Your task to perform on an android device: Open accessibility settings Image 0: 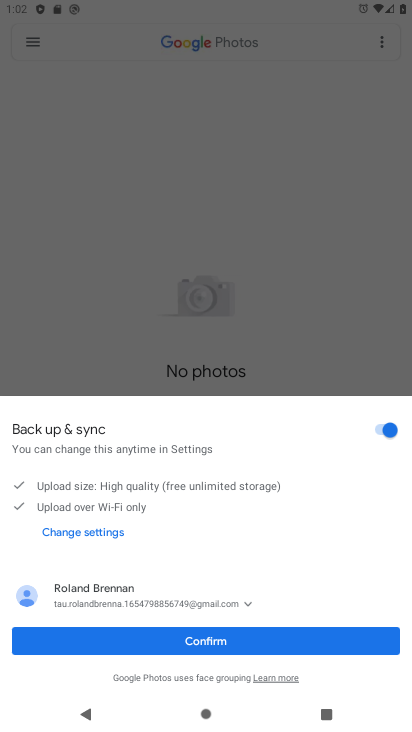
Step 0: press home button
Your task to perform on an android device: Open accessibility settings Image 1: 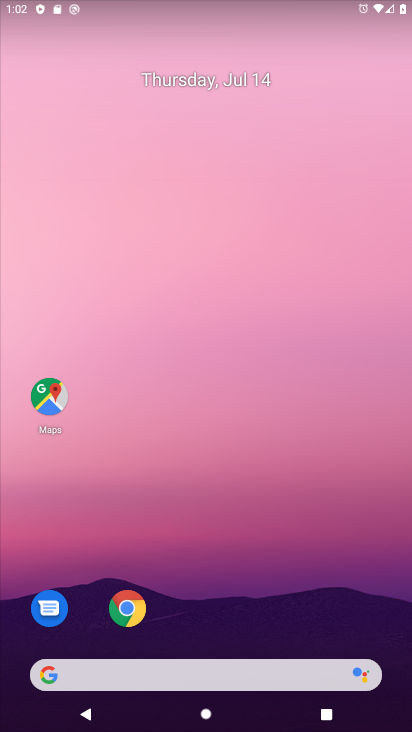
Step 1: drag from (303, 631) to (165, 156)
Your task to perform on an android device: Open accessibility settings Image 2: 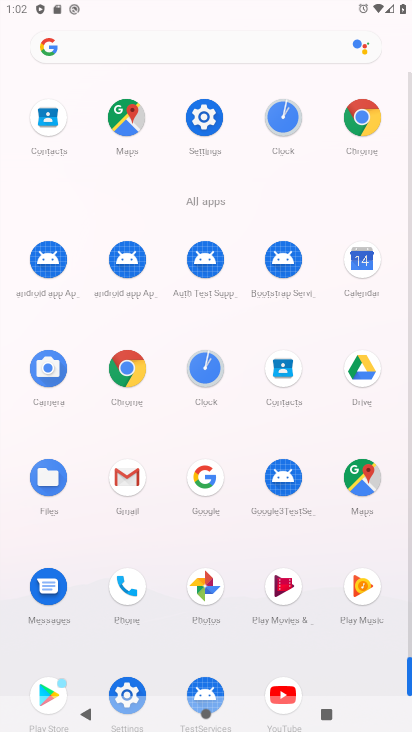
Step 2: click (123, 681)
Your task to perform on an android device: Open accessibility settings Image 3: 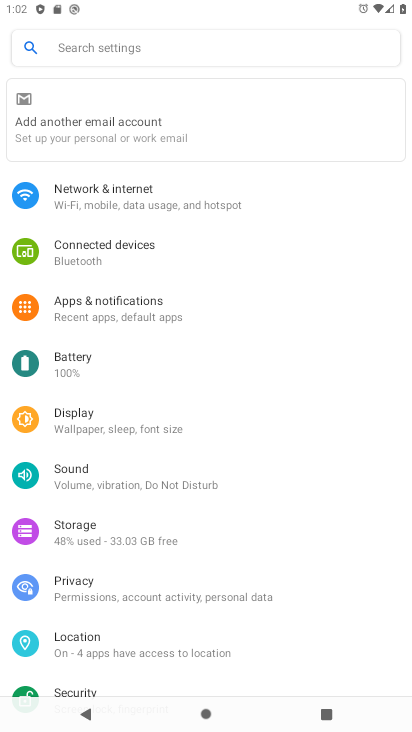
Step 3: drag from (210, 616) to (169, 310)
Your task to perform on an android device: Open accessibility settings Image 4: 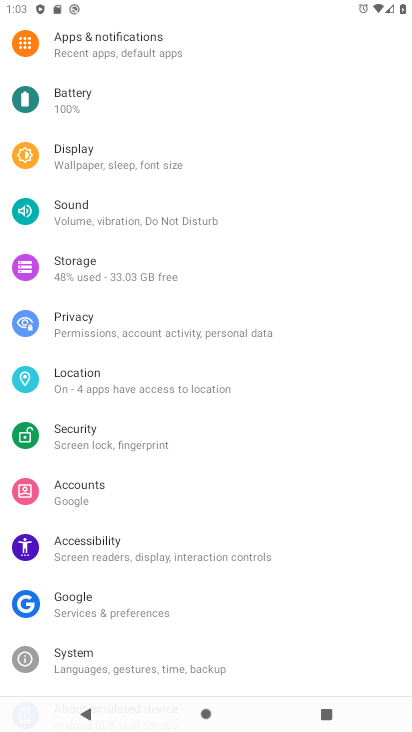
Step 4: click (108, 513)
Your task to perform on an android device: Open accessibility settings Image 5: 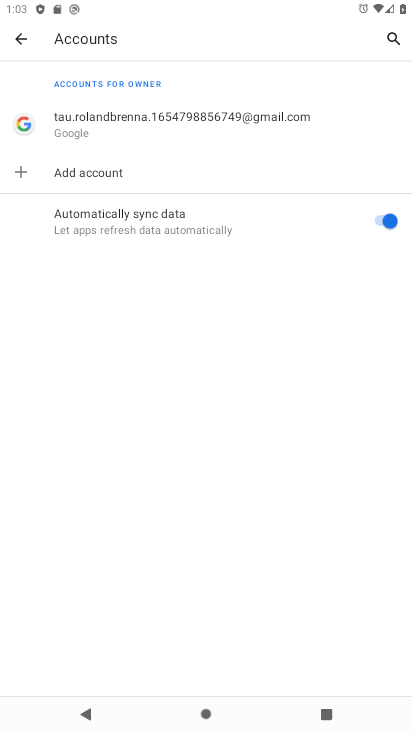
Step 5: click (21, 38)
Your task to perform on an android device: Open accessibility settings Image 6: 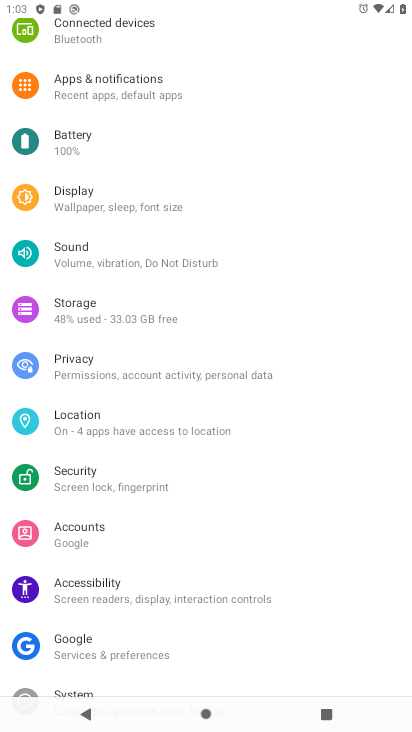
Step 6: drag from (142, 634) to (138, 314)
Your task to perform on an android device: Open accessibility settings Image 7: 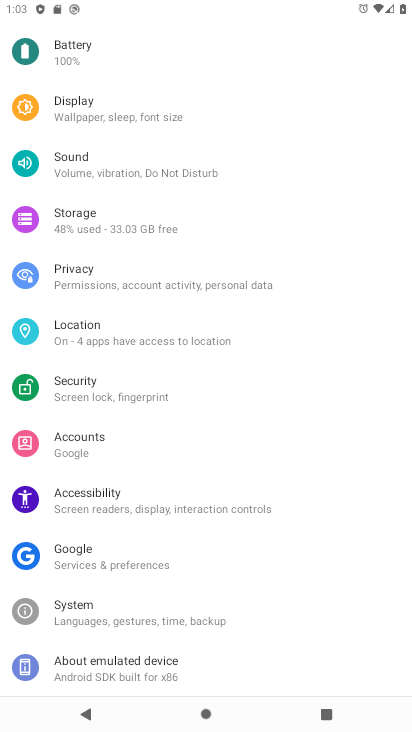
Step 7: click (80, 493)
Your task to perform on an android device: Open accessibility settings Image 8: 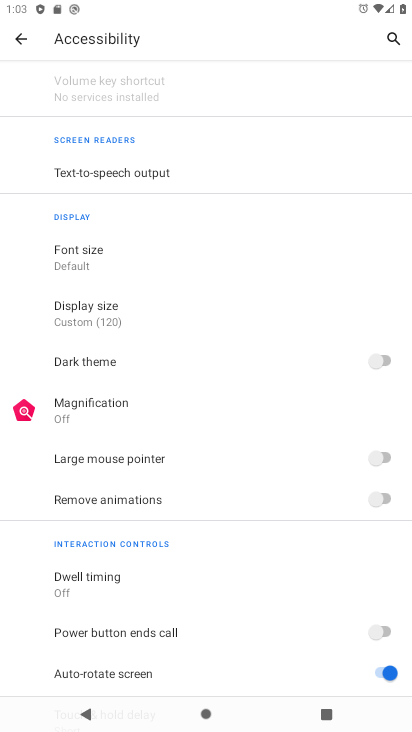
Step 8: task complete